Your task to perform on an android device: create a new album in the google photos Image 0: 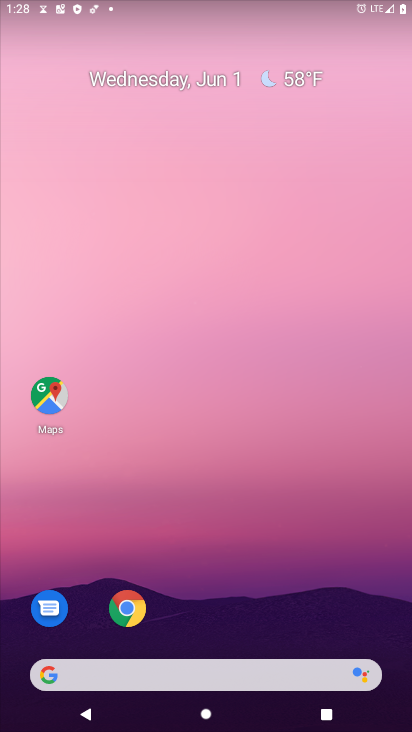
Step 0: drag from (283, 553) to (358, 135)
Your task to perform on an android device: create a new album in the google photos Image 1: 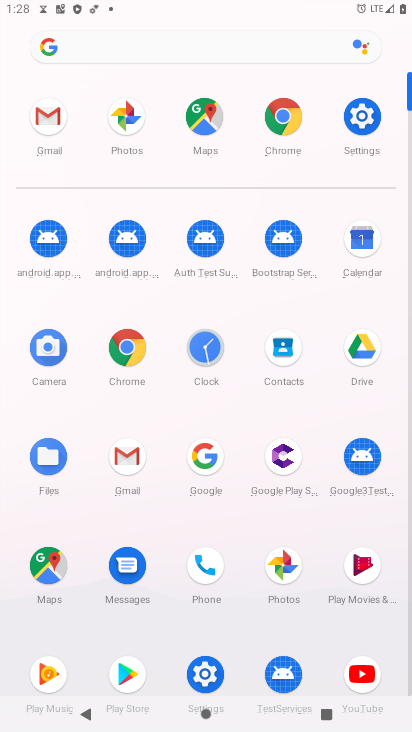
Step 1: click (279, 574)
Your task to perform on an android device: create a new album in the google photos Image 2: 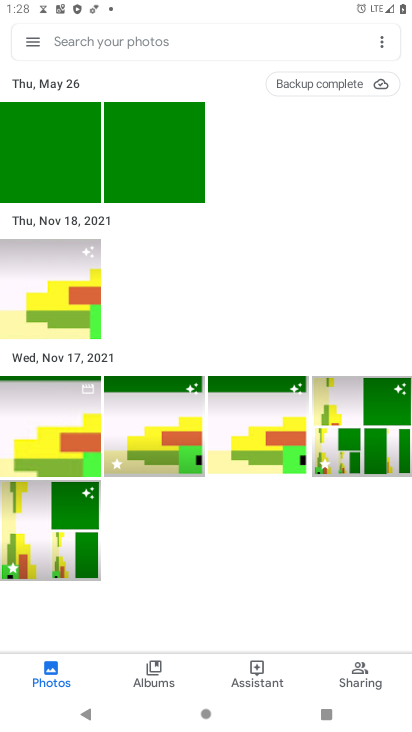
Step 2: click (63, 536)
Your task to perform on an android device: create a new album in the google photos Image 3: 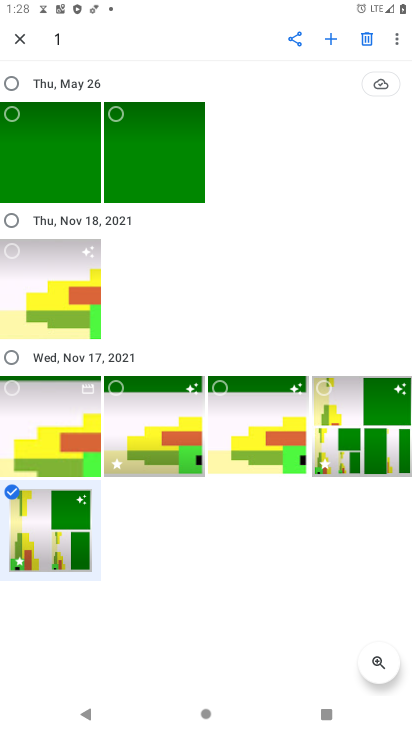
Step 3: click (27, 436)
Your task to perform on an android device: create a new album in the google photos Image 4: 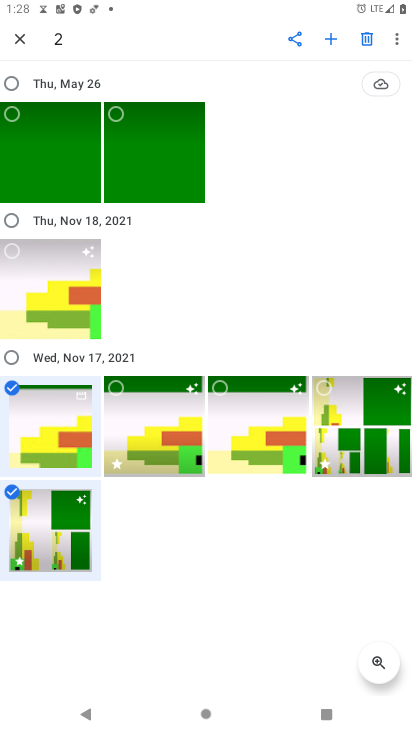
Step 4: click (325, 32)
Your task to perform on an android device: create a new album in the google photos Image 5: 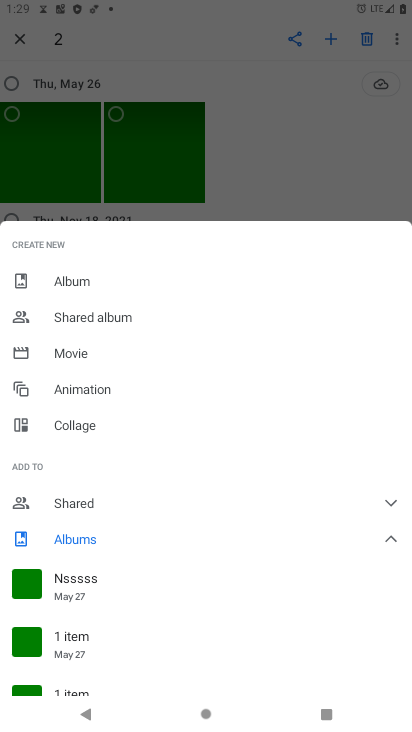
Step 5: click (110, 287)
Your task to perform on an android device: create a new album in the google photos Image 6: 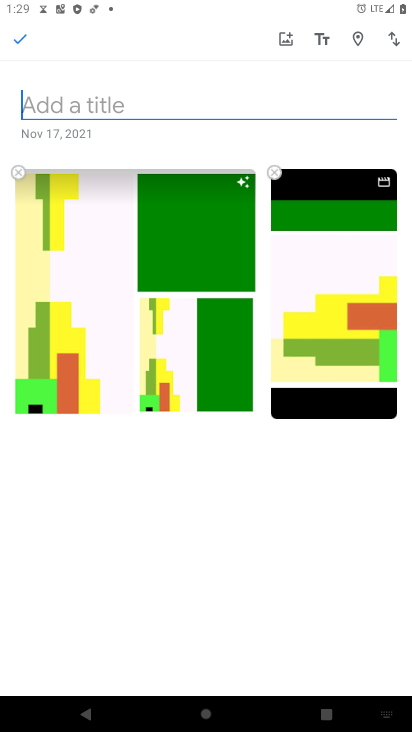
Step 6: type "1994"
Your task to perform on an android device: create a new album in the google photos Image 7: 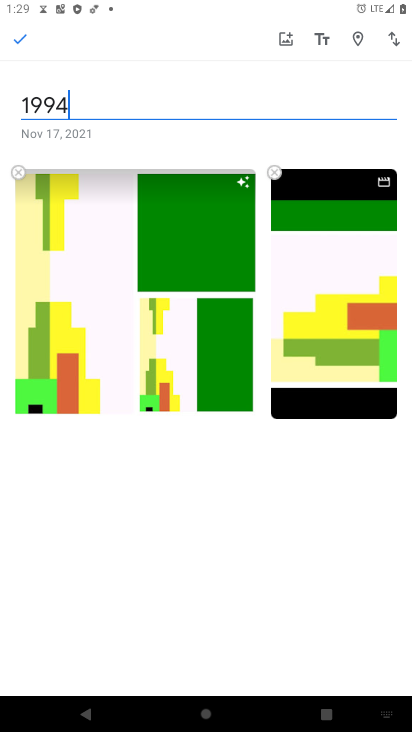
Step 7: click (19, 37)
Your task to perform on an android device: create a new album in the google photos Image 8: 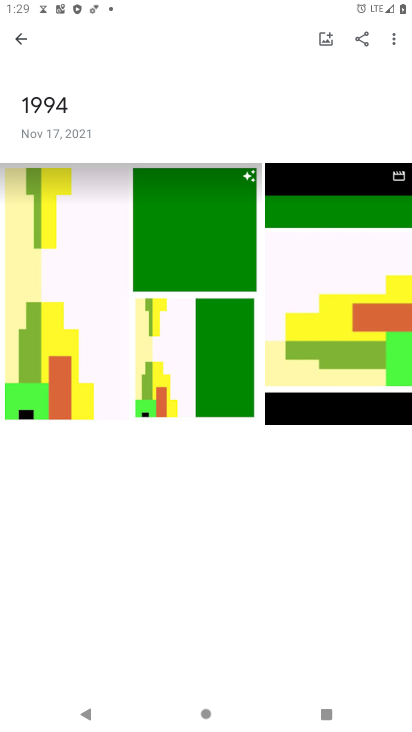
Step 8: click (15, 35)
Your task to perform on an android device: create a new album in the google photos Image 9: 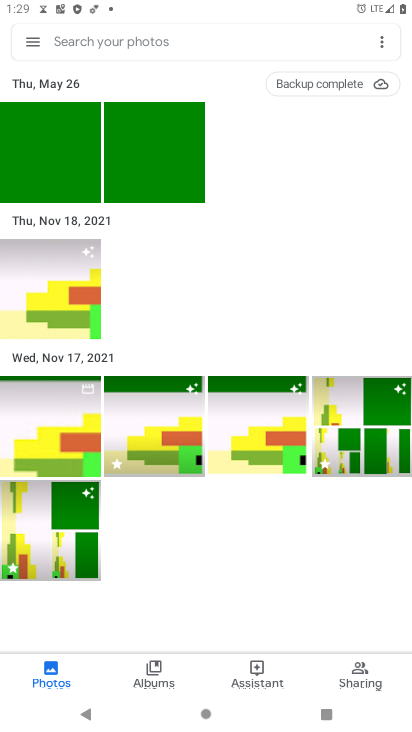
Step 9: click (140, 650)
Your task to perform on an android device: create a new album in the google photos Image 10: 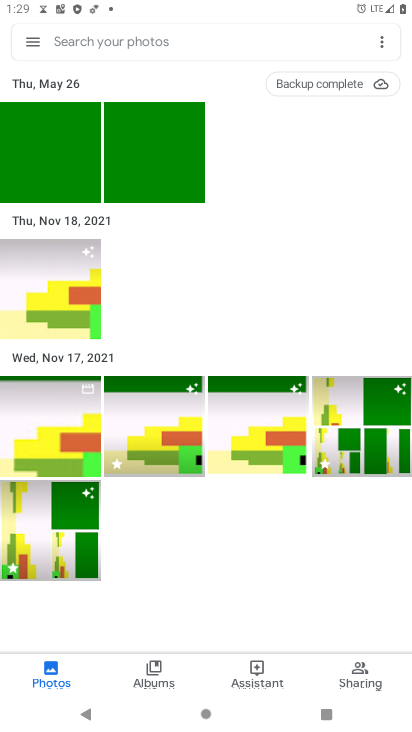
Step 10: click (158, 670)
Your task to perform on an android device: create a new album in the google photos Image 11: 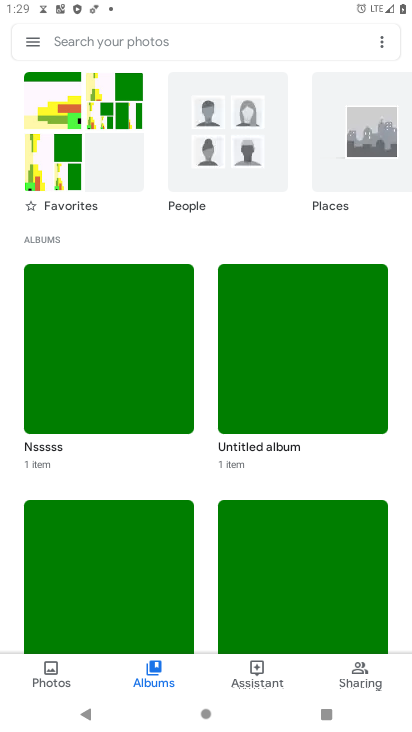
Step 11: task complete